Your task to perform on an android device: Open Google Maps and go to "Timeline" Image 0: 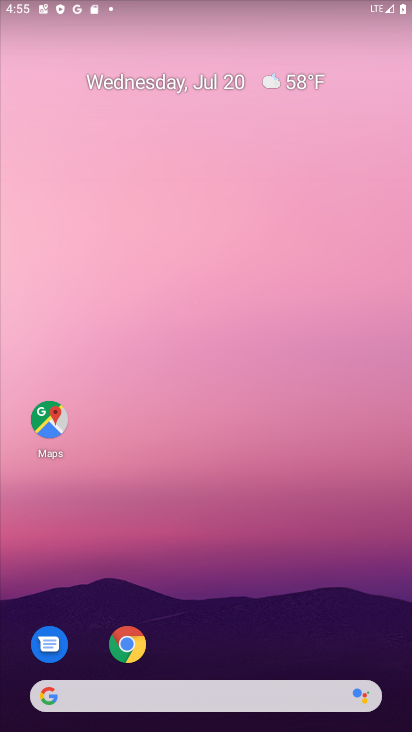
Step 0: drag from (217, 657) to (213, 115)
Your task to perform on an android device: Open Google Maps and go to "Timeline" Image 1: 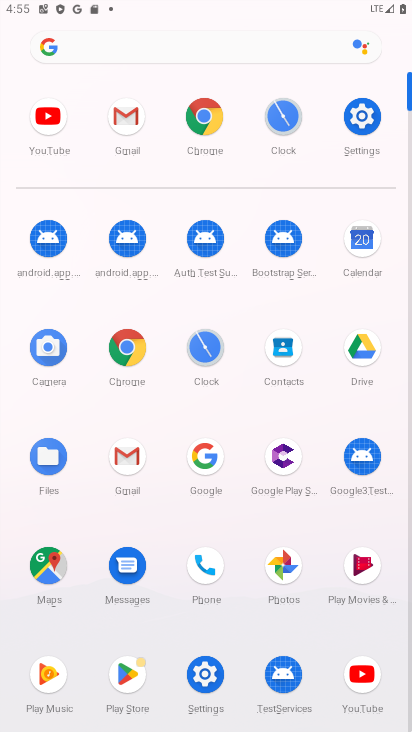
Step 1: click (53, 570)
Your task to perform on an android device: Open Google Maps and go to "Timeline" Image 2: 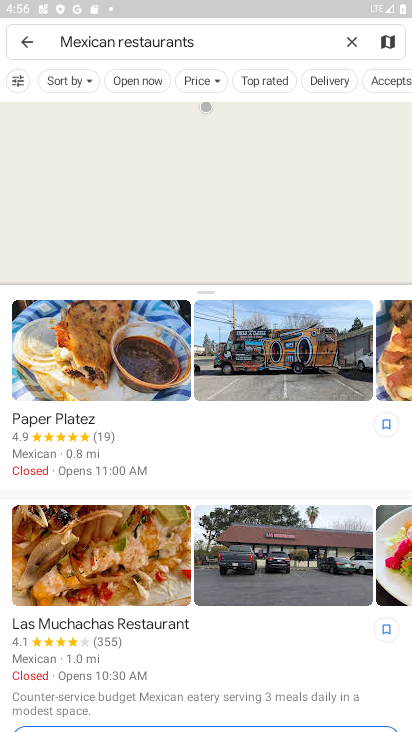
Step 2: click (26, 35)
Your task to perform on an android device: Open Google Maps and go to "Timeline" Image 3: 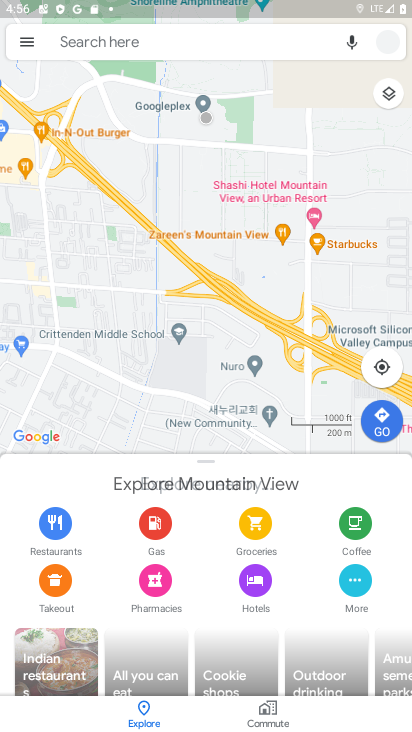
Step 3: click (29, 45)
Your task to perform on an android device: Open Google Maps and go to "Timeline" Image 4: 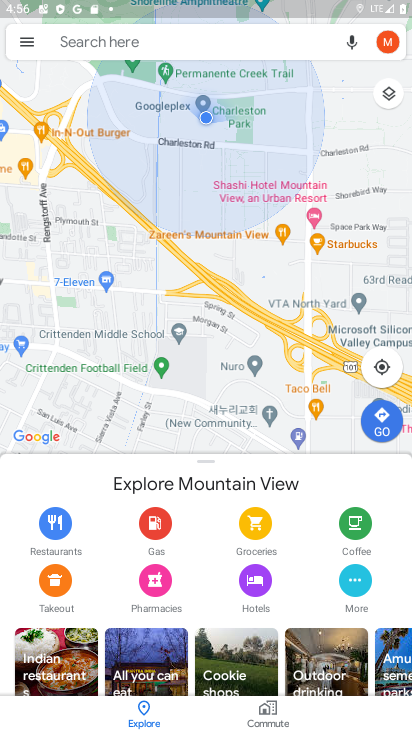
Step 4: click (29, 44)
Your task to perform on an android device: Open Google Maps and go to "Timeline" Image 5: 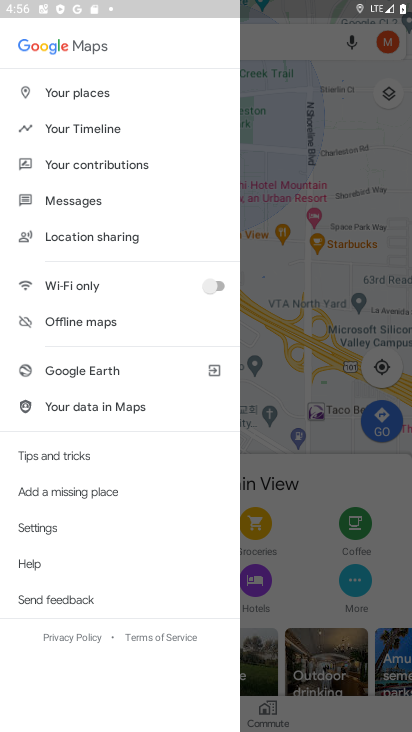
Step 5: click (78, 136)
Your task to perform on an android device: Open Google Maps and go to "Timeline" Image 6: 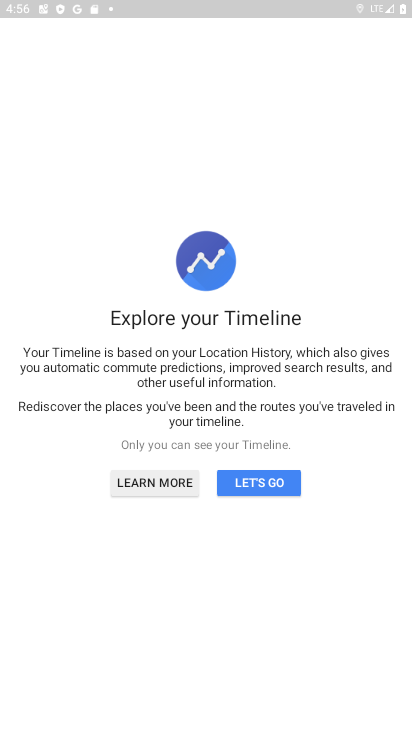
Step 6: click (263, 482)
Your task to perform on an android device: Open Google Maps and go to "Timeline" Image 7: 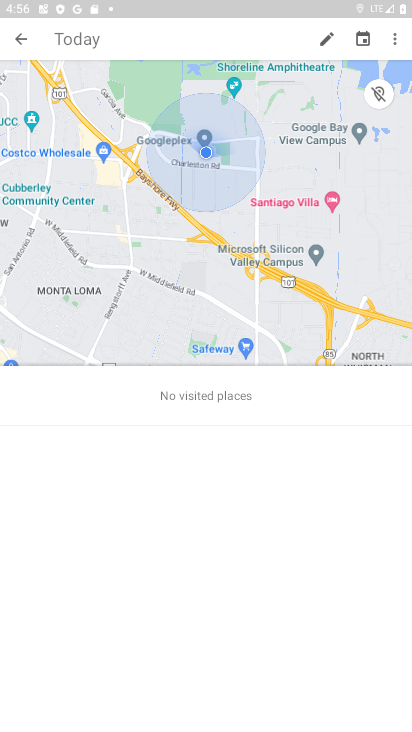
Step 7: task complete